Your task to perform on an android device: make emails show in primary in the gmail app Image 0: 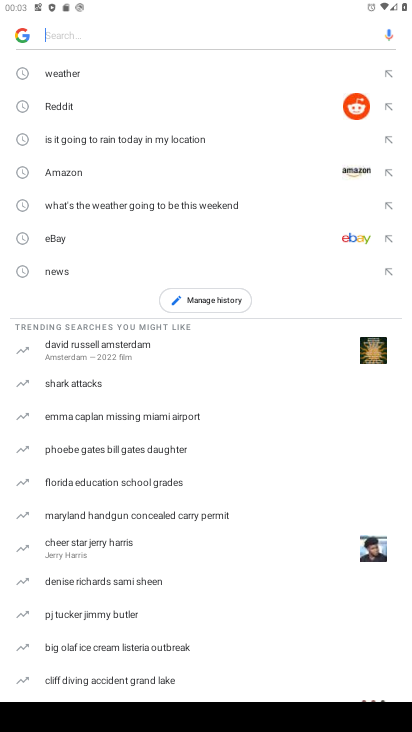
Step 0: press home button
Your task to perform on an android device: make emails show in primary in the gmail app Image 1: 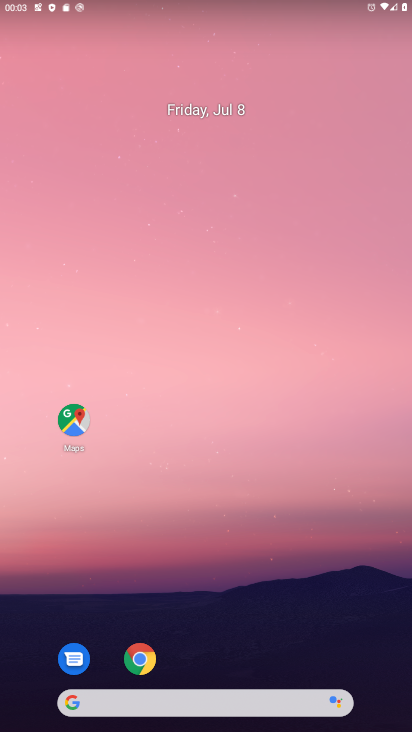
Step 1: drag from (197, 636) to (131, 163)
Your task to perform on an android device: make emails show in primary in the gmail app Image 2: 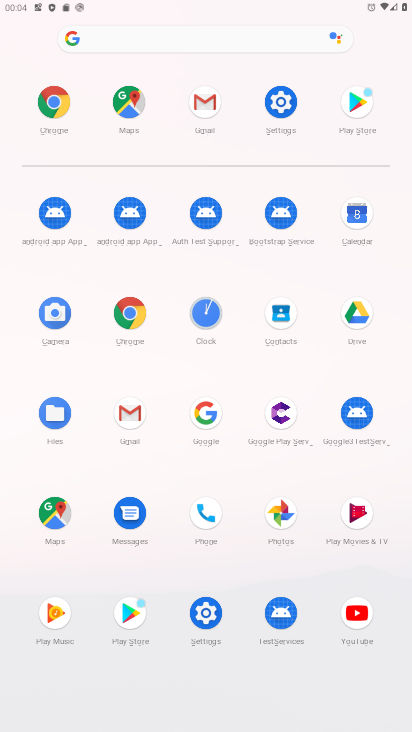
Step 2: click (215, 88)
Your task to perform on an android device: make emails show in primary in the gmail app Image 3: 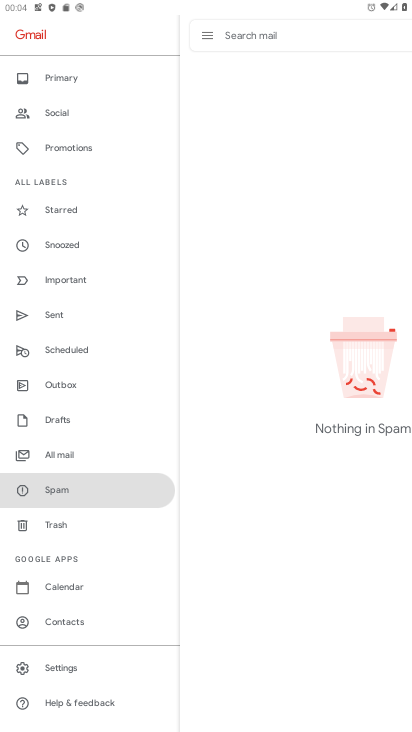
Step 3: click (108, 86)
Your task to perform on an android device: make emails show in primary in the gmail app Image 4: 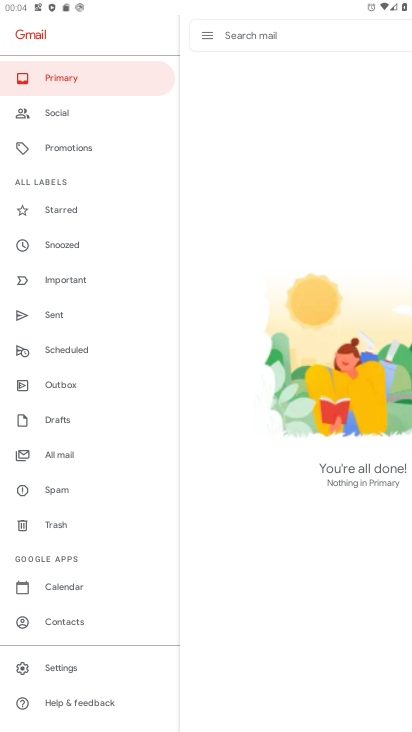
Step 4: task complete